Your task to perform on an android device: toggle pop-ups in chrome Image 0: 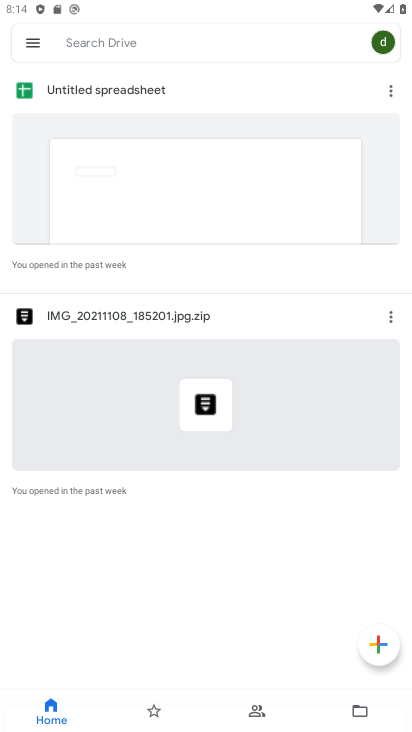
Step 0: task complete